Your task to perform on an android device: Go to CNN.com Image 0: 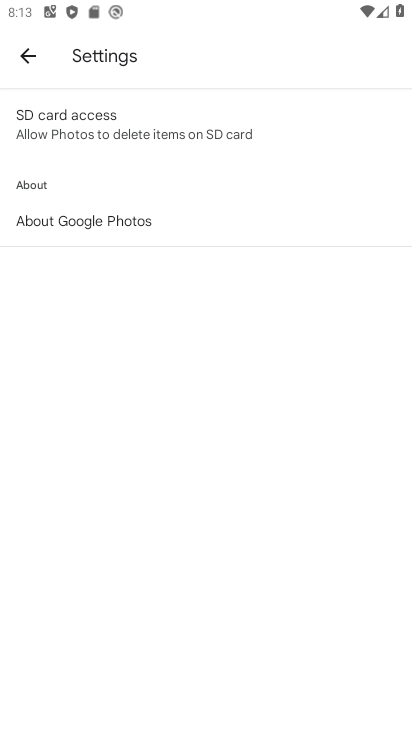
Step 0: press home button
Your task to perform on an android device: Go to CNN.com Image 1: 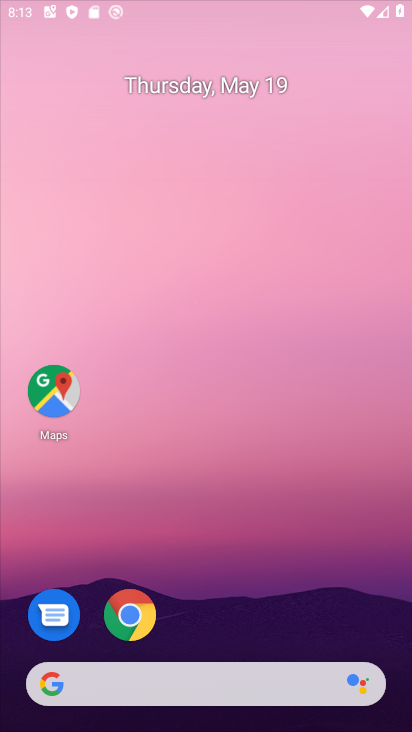
Step 1: drag from (242, 616) to (304, 68)
Your task to perform on an android device: Go to CNN.com Image 2: 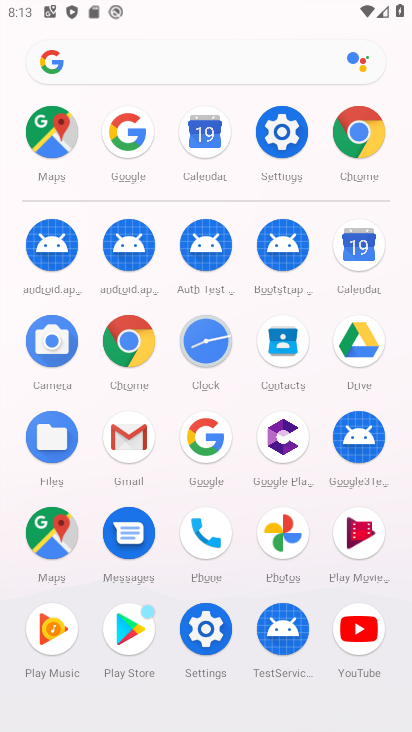
Step 2: click (205, 439)
Your task to perform on an android device: Go to CNN.com Image 3: 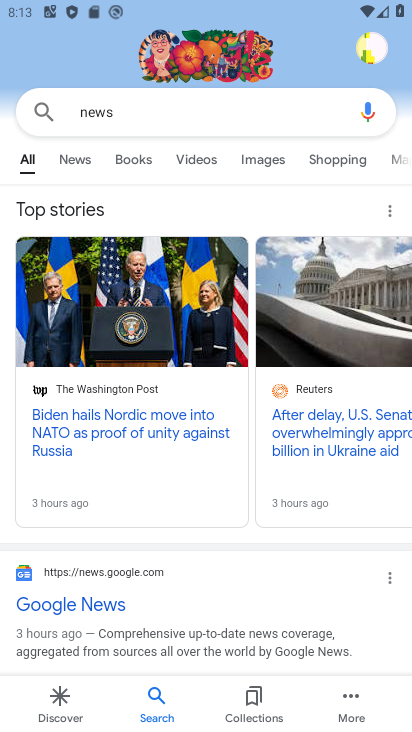
Step 3: click (191, 120)
Your task to perform on an android device: Go to CNN.com Image 4: 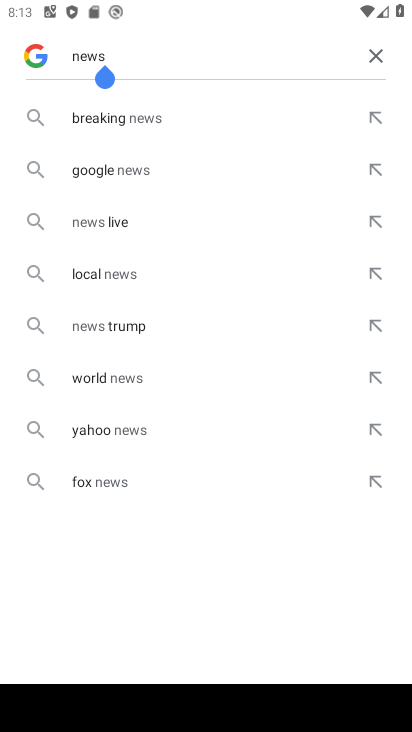
Step 4: click (378, 56)
Your task to perform on an android device: Go to CNN.com Image 5: 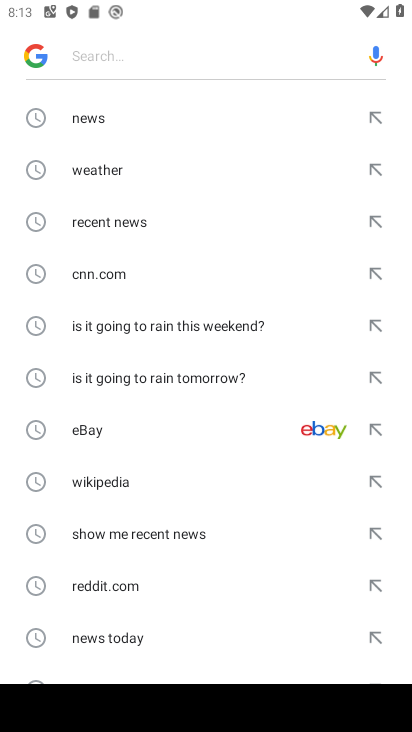
Step 5: click (120, 260)
Your task to perform on an android device: Go to CNN.com Image 6: 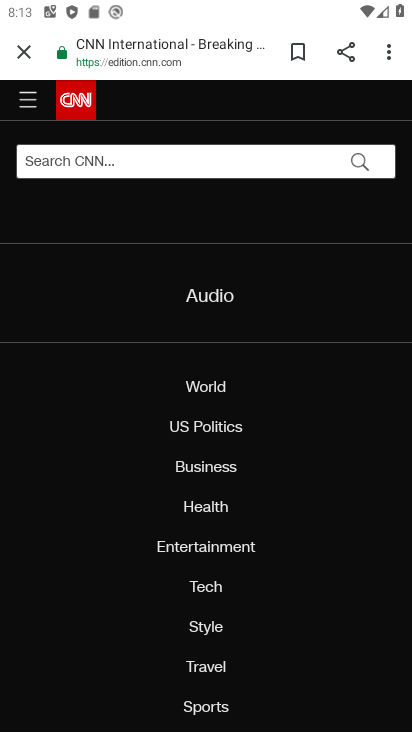
Step 6: task complete